Your task to perform on an android device: add a contact in the contacts app Image 0: 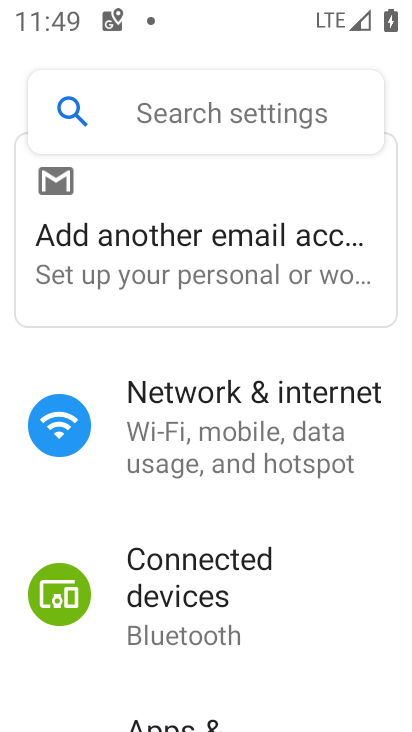
Step 0: press home button
Your task to perform on an android device: add a contact in the contacts app Image 1: 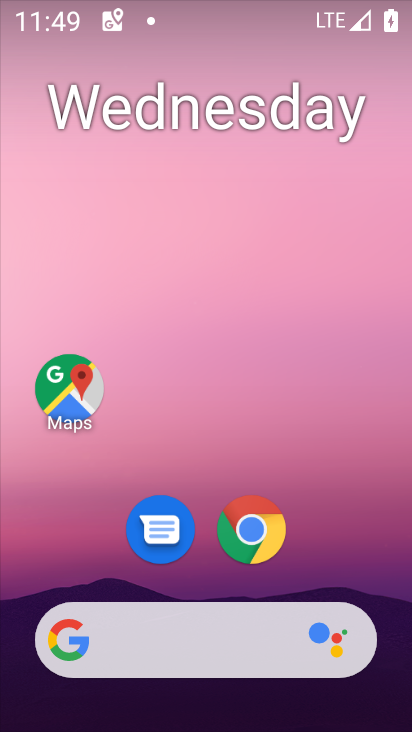
Step 1: drag from (402, 604) to (330, 128)
Your task to perform on an android device: add a contact in the contacts app Image 2: 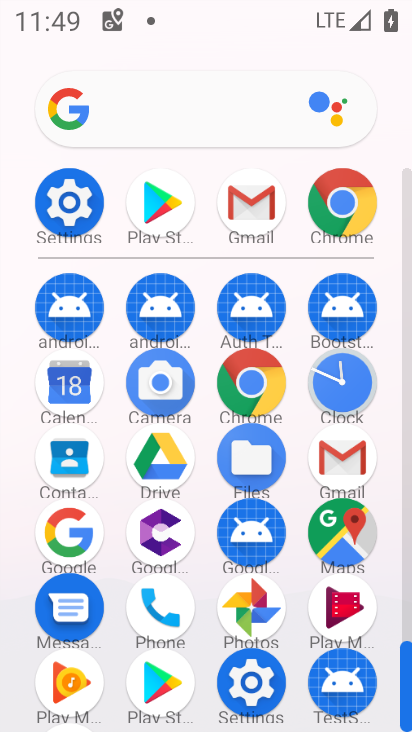
Step 2: click (67, 459)
Your task to perform on an android device: add a contact in the contacts app Image 3: 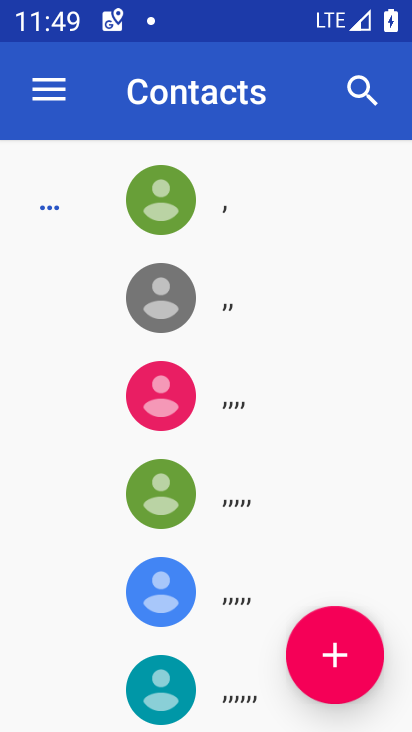
Step 3: click (332, 653)
Your task to perform on an android device: add a contact in the contacts app Image 4: 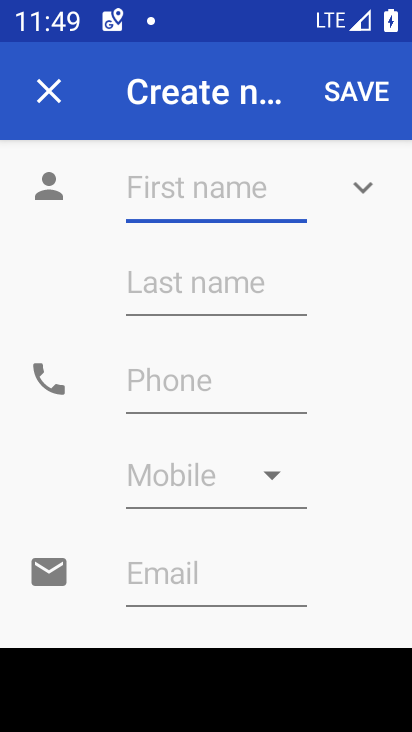
Step 4: type "jkaldfmhop"
Your task to perform on an android device: add a contact in the contacts app Image 5: 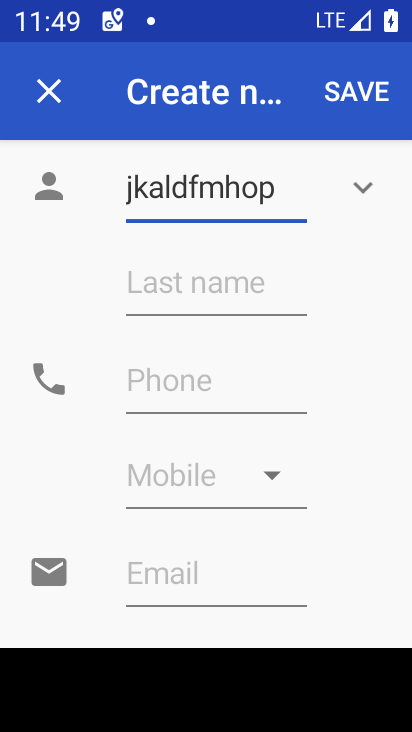
Step 5: click (198, 383)
Your task to perform on an android device: add a contact in the contacts app Image 6: 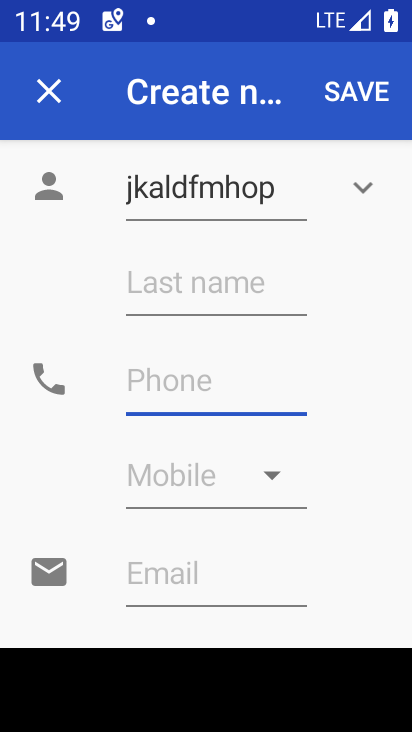
Step 6: type "0971246709"
Your task to perform on an android device: add a contact in the contacts app Image 7: 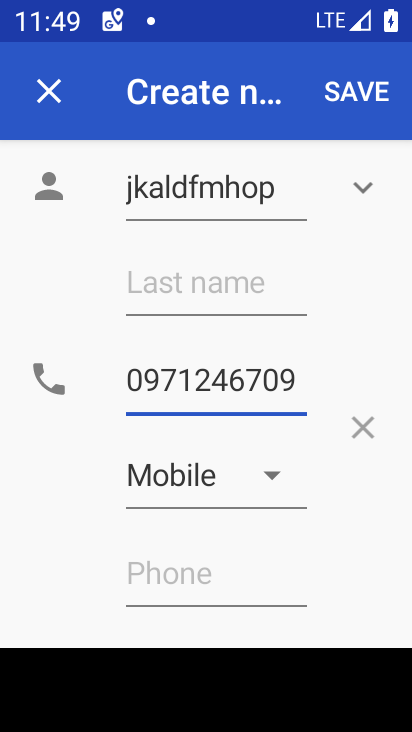
Step 7: click (269, 478)
Your task to perform on an android device: add a contact in the contacts app Image 8: 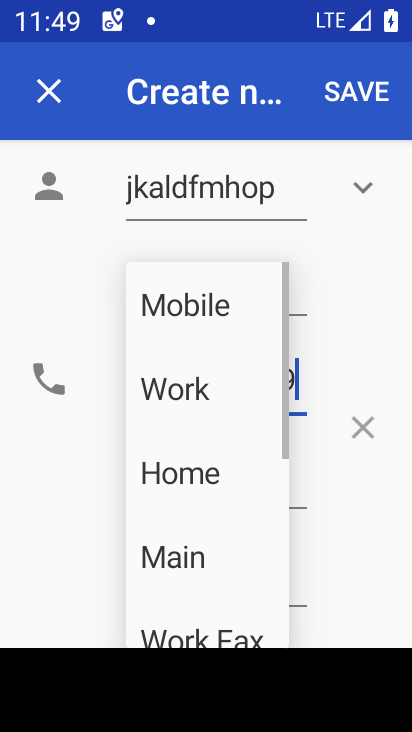
Step 8: click (189, 387)
Your task to perform on an android device: add a contact in the contacts app Image 9: 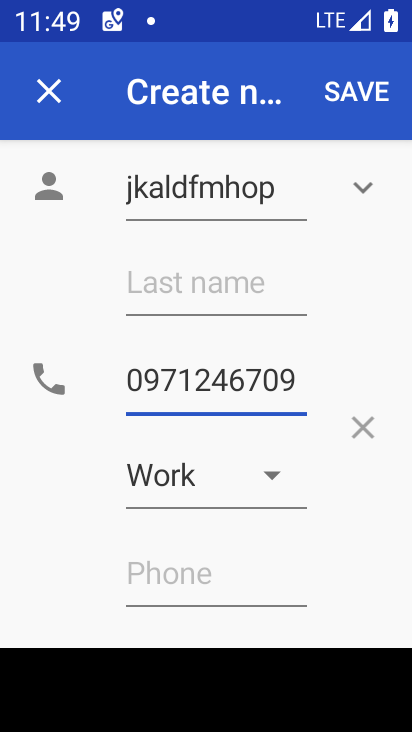
Step 9: click (355, 93)
Your task to perform on an android device: add a contact in the contacts app Image 10: 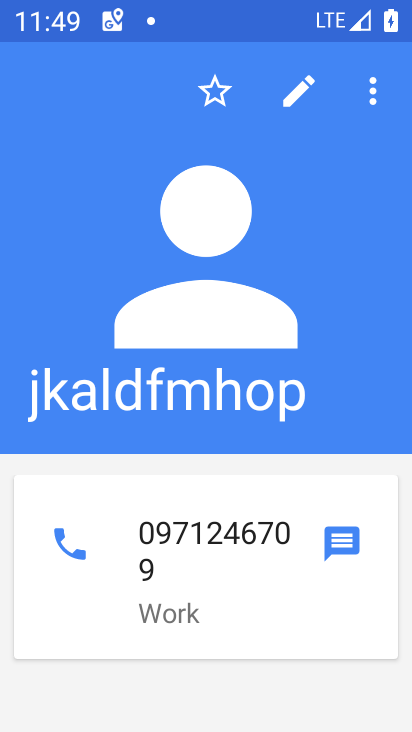
Step 10: task complete